Your task to perform on an android device: Open eBay Image 0: 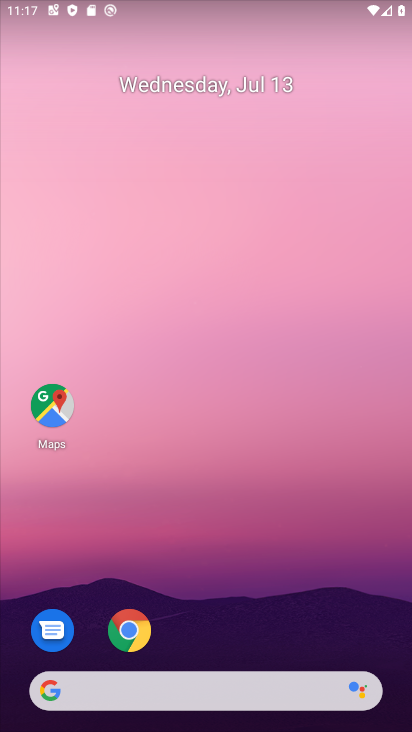
Step 0: drag from (293, 639) to (328, 107)
Your task to perform on an android device: Open eBay Image 1: 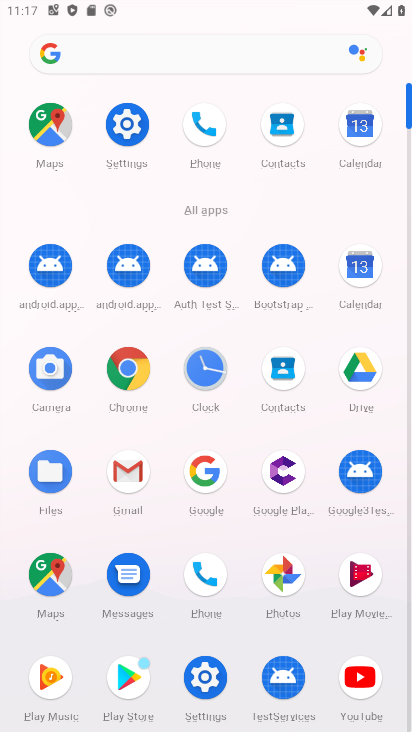
Step 1: click (130, 358)
Your task to perform on an android device: Open eBay Image 2: 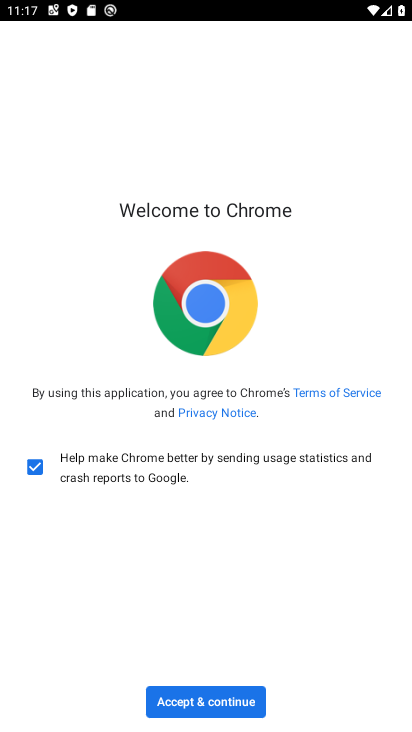
Step 2: click (251, 704)
Your task to perform on an android device: Open eBay Image 3: 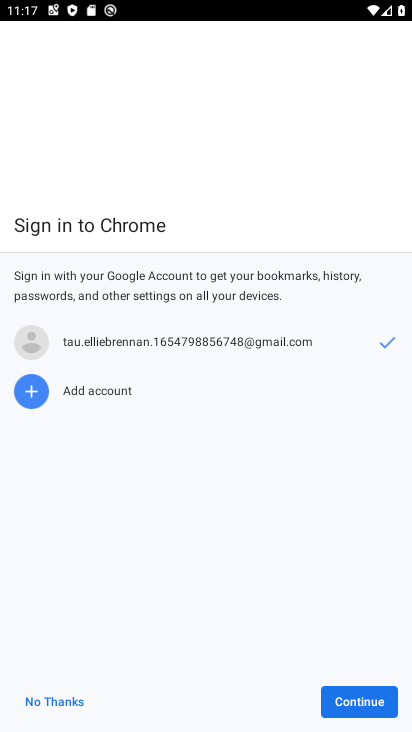
Step 3: click (360, 699)
Your task to perform on an android device: Open eBay Image 4: 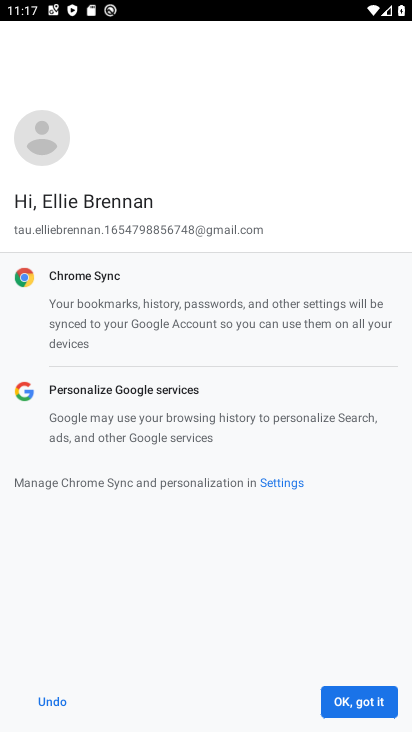
Step 4: click (361, 705)
Your task to perform on an android device: Open eBay Image 5: 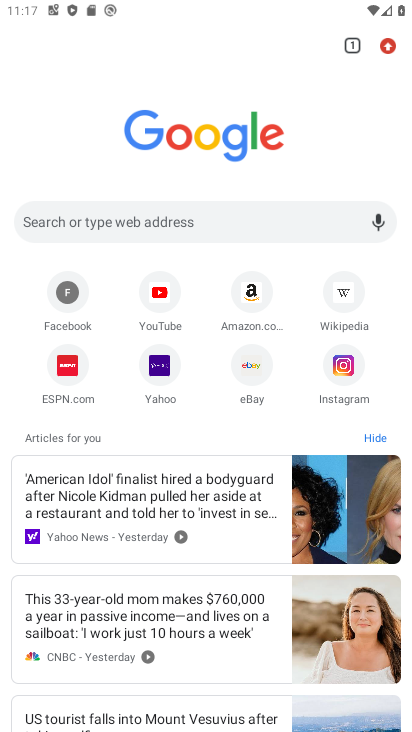
Step 5: click (182, 225)
Your task to perform on an android device: Open eBay Image 6: 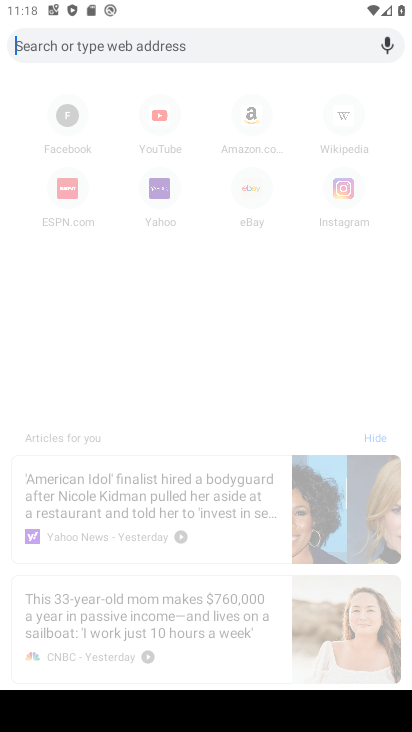
Step 6: type "ebay"
Your task to perform on an android device: Open eBay Image 7: 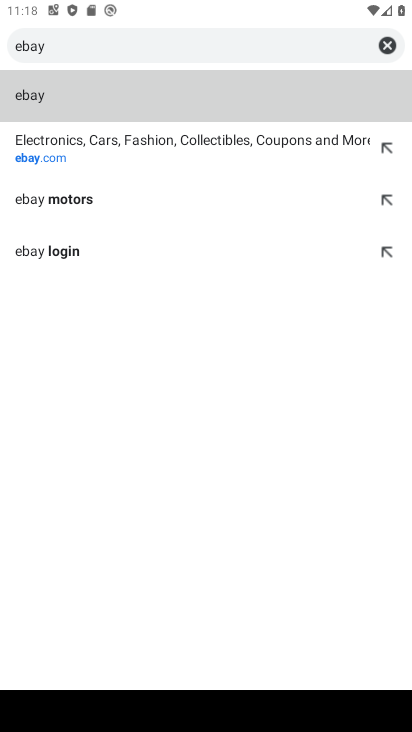
Step 7: click (102, 140)
Your task to perform on an android device: Open eBay Image 8: 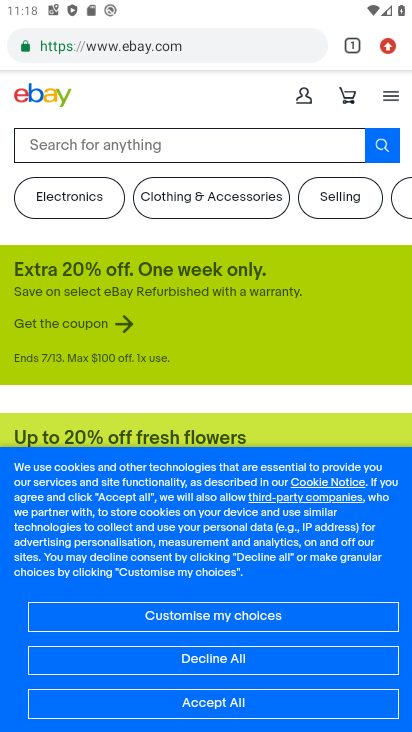
Step 8: task complete